Your task to perform on an android device: allow notifications from all sites in the chrome app Image 0: 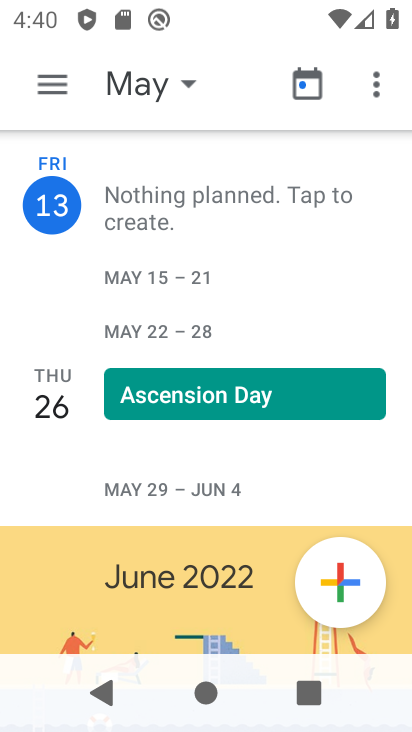
Step 0: press back button
Your task to perform on an android device: allow notifications from all sites in the chrome app Image 1: 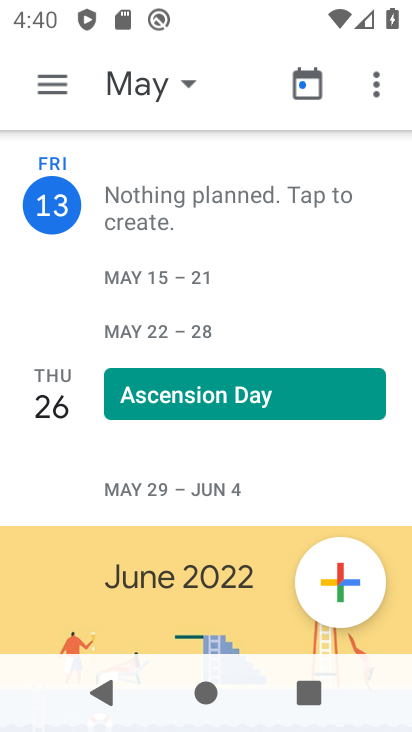
Step 1: press back button
Your task to perform on an android device: allow notifications from all sites in the chrome app Image 2: 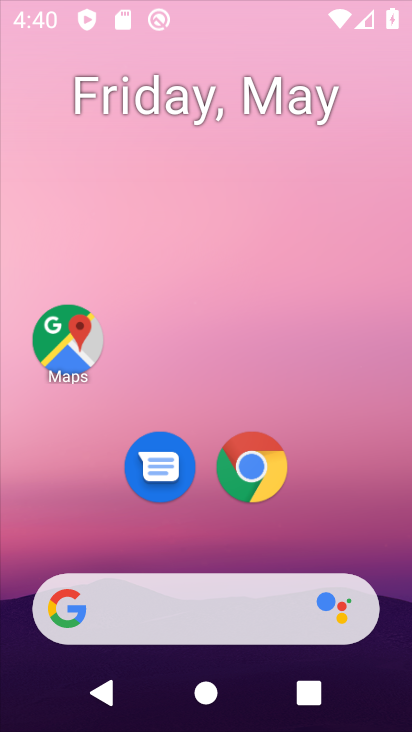
Step 2: press back button
Your task to perform on an android device: allow notifications from all sites in the chrome app Image 3: 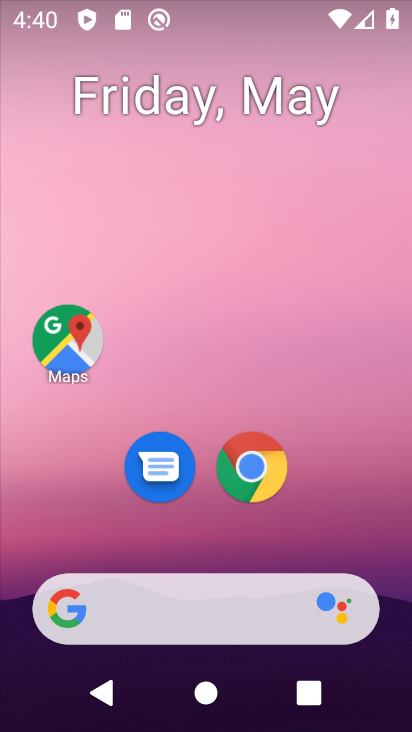
Step 3: press home button
Your task to perform on an android device: allow notifications from all sites in the chrome app Image 4: 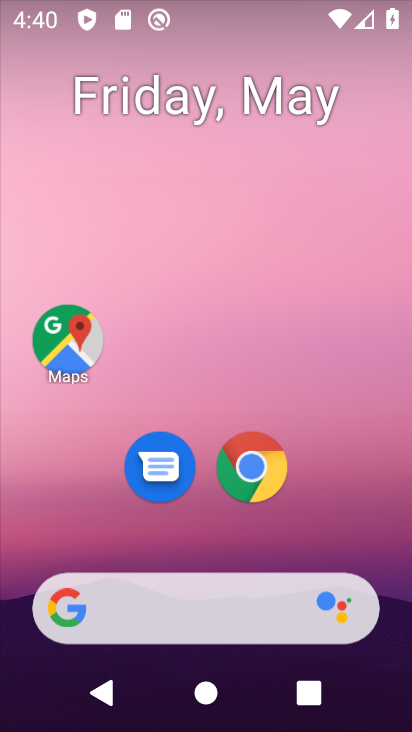
Step 4: drag from (291, 536) to (148, 120)
Your task to perform on an android device: allow notifications from all sites in the chrome app Image 5: 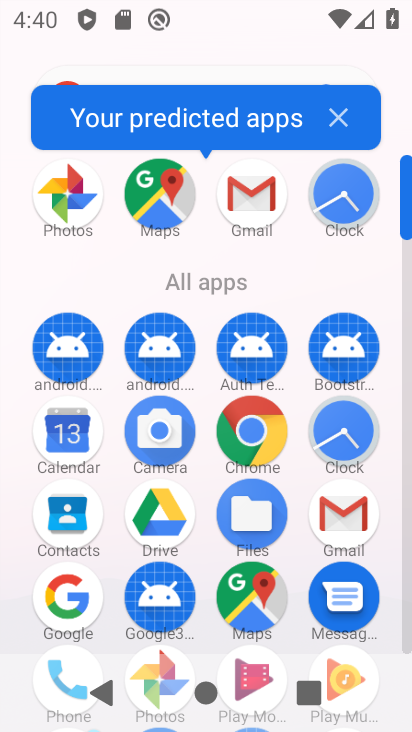
Step 5: click (264, 429)
Your task to perform on an android device: allow notifications from all sites in the chrome app Image 6: 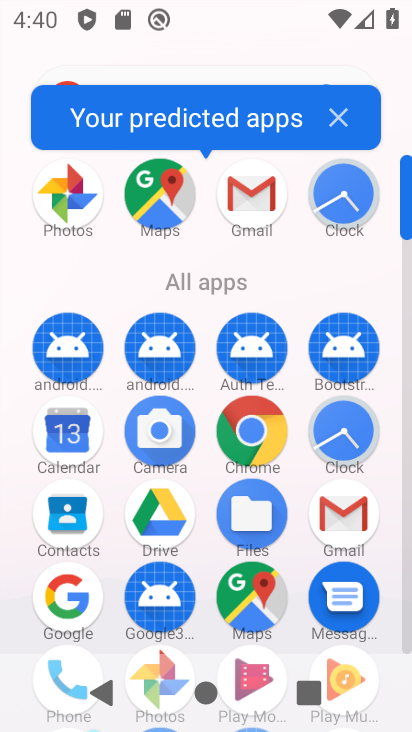
Step 6: click (247, 415)
Your task to perform on an android device: allow notifications from all sites in the chrome app Image 7: 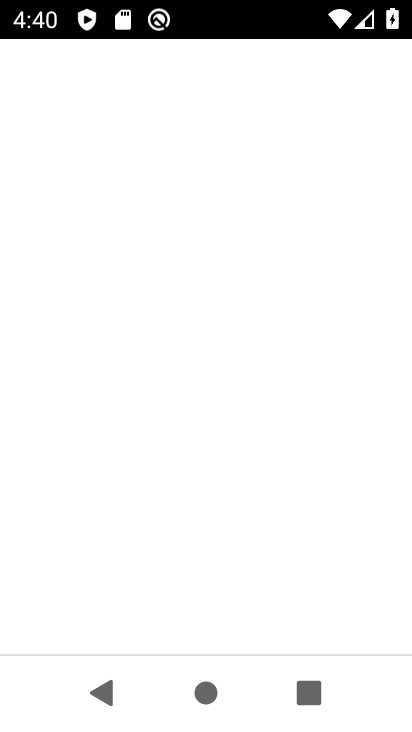
Step 7: click (250, 419)
Your task to perform on an android device: allow notifications from all sites in the chrome app Image 8: 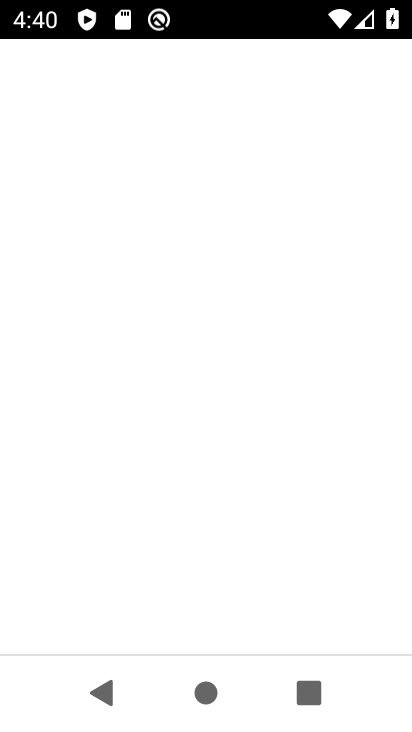
Step 8: click (245, 419)
Your task to perform on an android device: allow notifications from all sites in the chrome app Image 9: 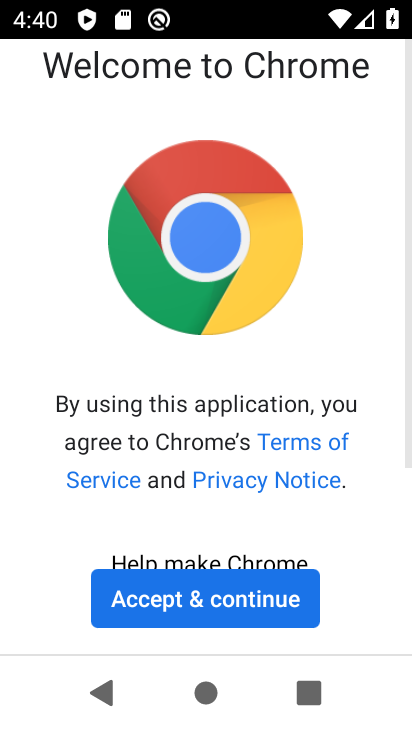
Step 9: click (260, 585)
Your task to perform on an android device: allow notifications from all sites in the chrome app Image 10: 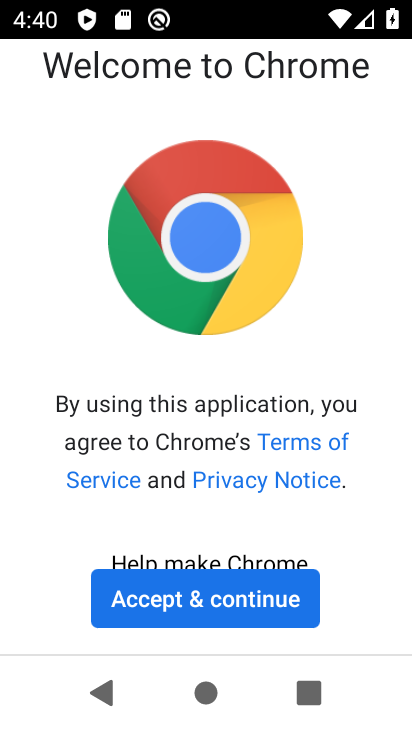
Step 10: click (259, 585)
Your task to perform on an android device: allow notifications from all sites in the chrome app Image 11: 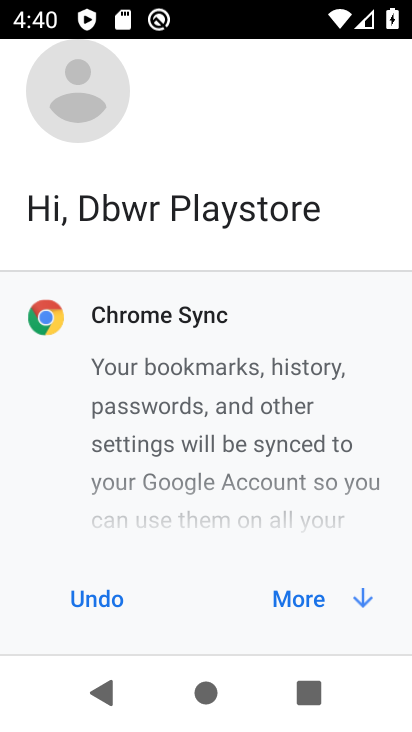
Step 11: click (313, 600)
Your task to perform on an android device: allow notifications from all sites in the chrome app Image 12: 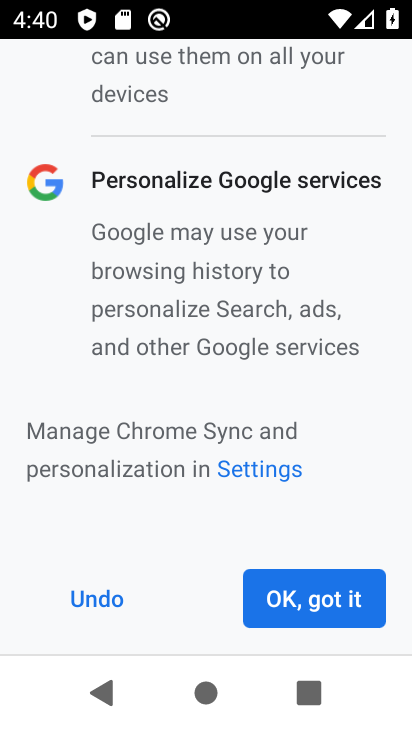
Step 12: click (320, 599)
Your task to perform on an android device: allow notifications from all sites in the chrome app Image 13: 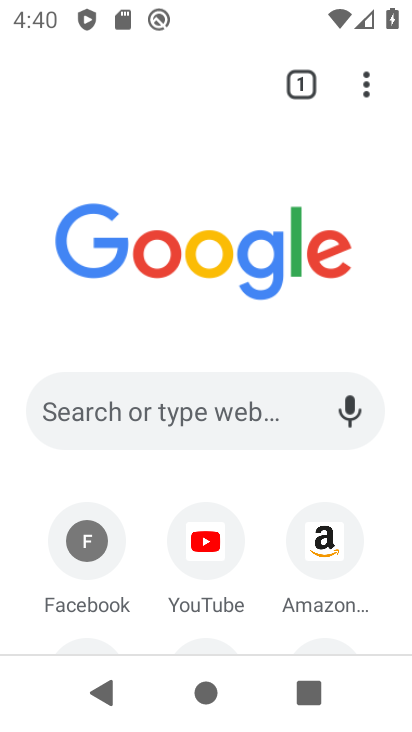
Step 13: drag from (361, 95) to (81, 523)
Your task to perform on an android device: allow notifications from all sites in the chrome app Image 14: 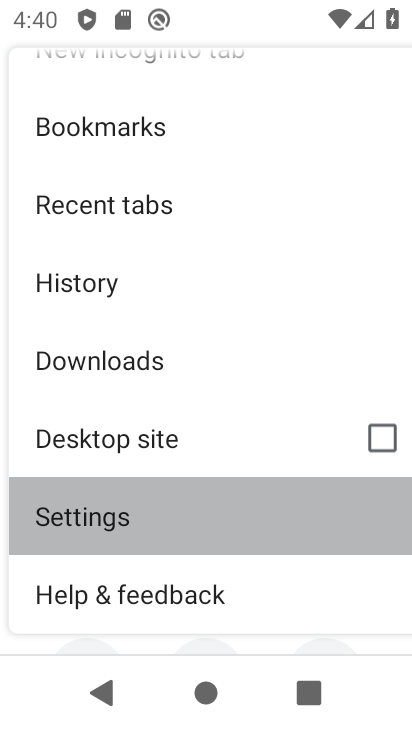
Step 14: click (80, 521)
Your task to perform on an android device: allow notifications from all sites in the chrome app Image 15: 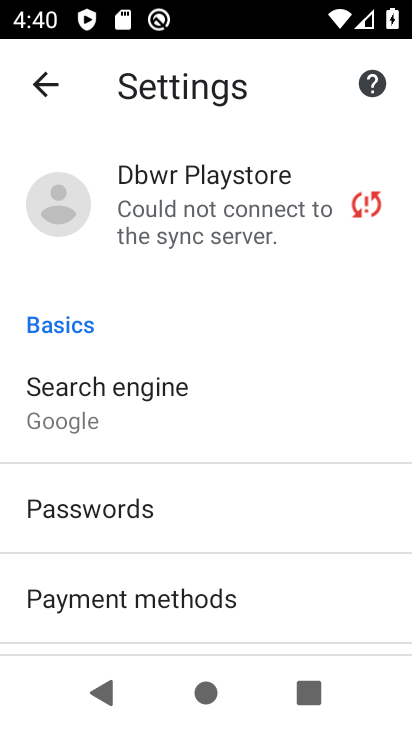
Step 15: drag from (105, 517) to (77, 155)
Your task to perform on an android device: allow notifications from all sites in the chrome app Image 16: 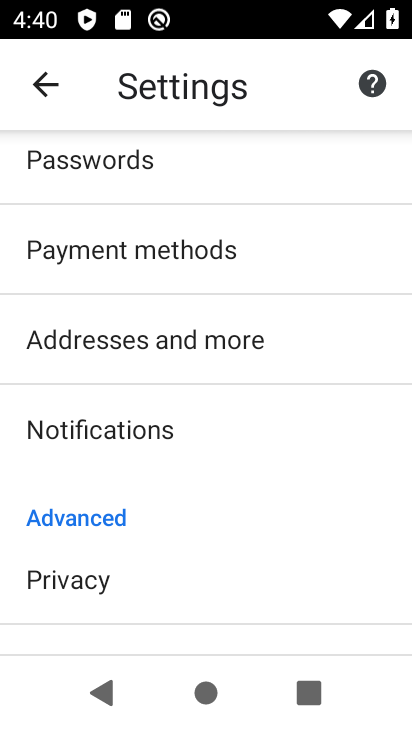
Step 16: drag from (101, 527) to (80, 68)
Your task to perform on an android device: allow notifications from all sites in the chrome app Image 17: 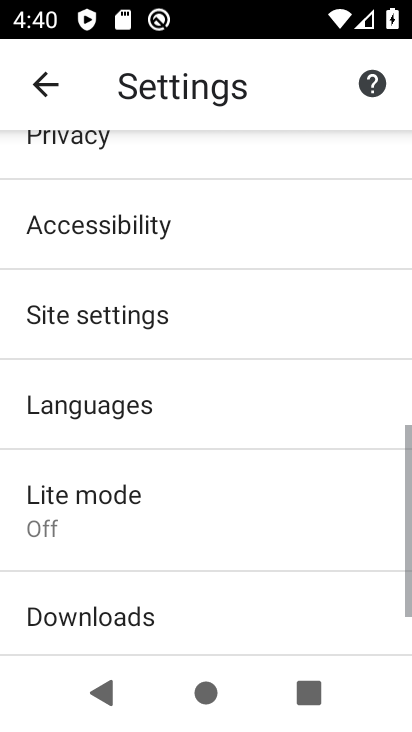
Step 17: drag from (123, 493) to (90, 133)
Your task to perform on an android device: allow notifications from all sites in the chrome app Image 18: 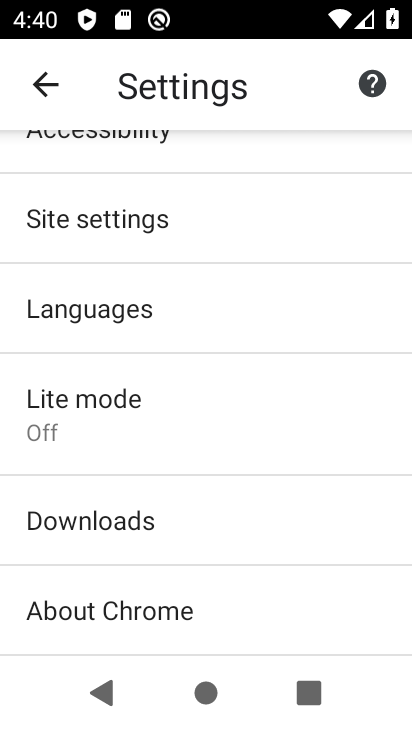
Step 18: click (84, 217)
Your task to perform on an android device: allow notifications from all sites in the chrome app Image 19: 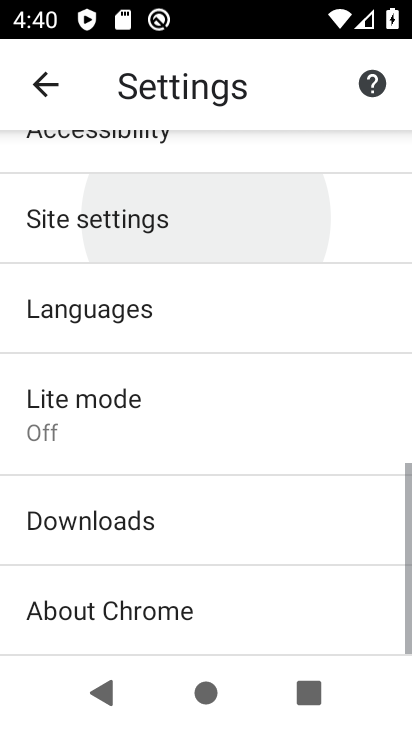
Step 19: click (84, 217)
Your task to perform on an android device: allow notifications from all sites in the chrome app Image 20: 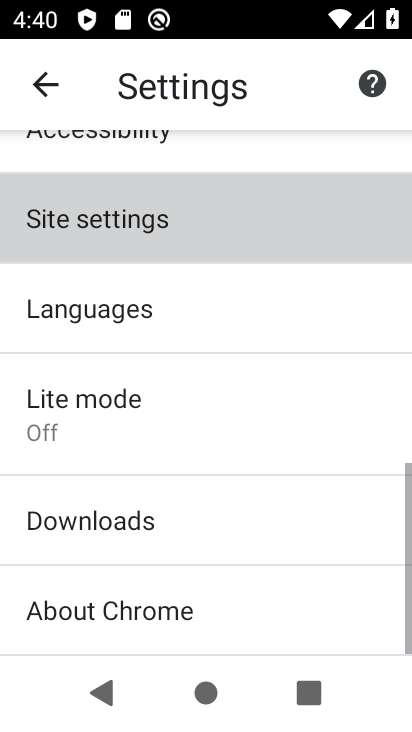
Step 20: click (83, 221)
Your task to perform on an android device: allow notifications from all sites in the chrome app Image 21: 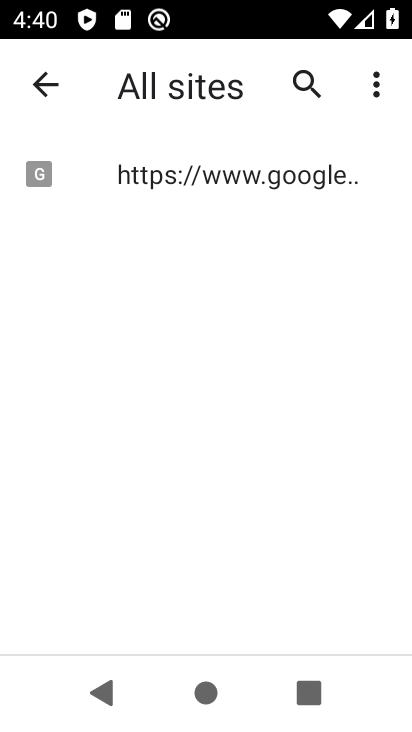
Step 21: click (228, 162)
Your task to perform on an android device: allow notifications from all sites in the chrome app Image 22: 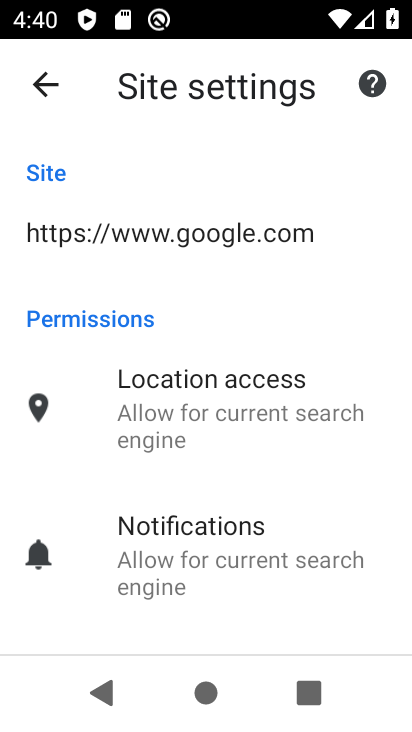
Step 22: click (157, 539)
Your task to perform on an android device: allow notifications from all sites in the chrome app Image 23: 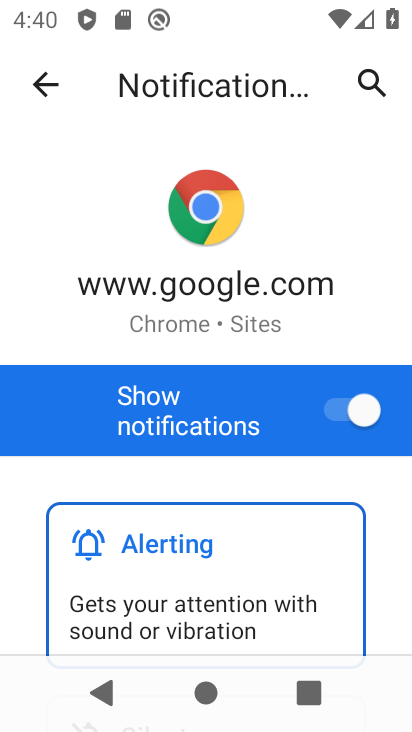
Step 23: task complete